Your task to perform on an android device: Open maps Image 0: 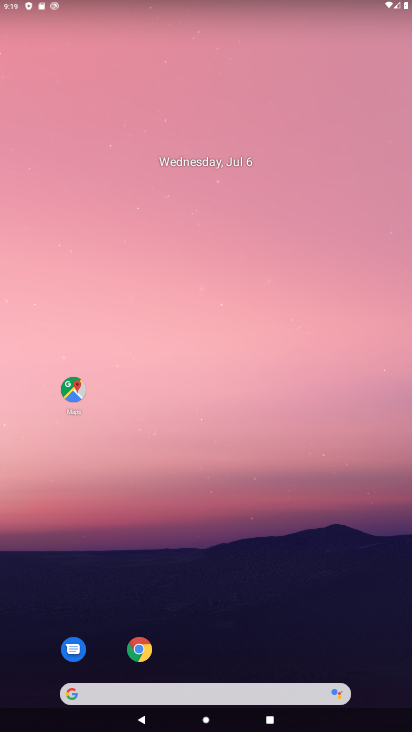
Step 0: press home button
Your task to perform on an android device: Open maps Image 1: 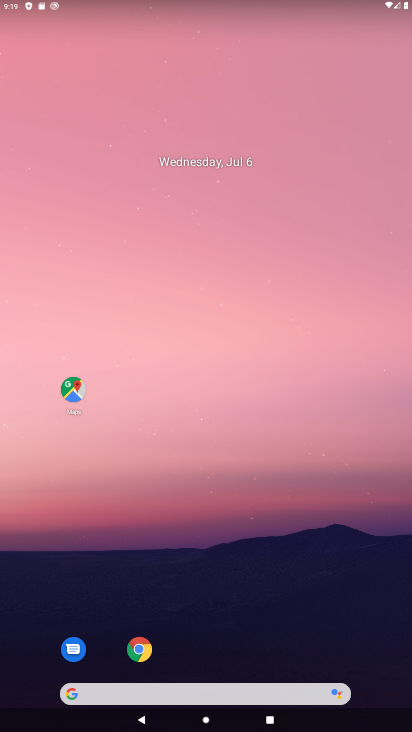
Step 1: drag from (211, 654) to (206, 494)
Your task to perform on an android device: Open maps Image 2: 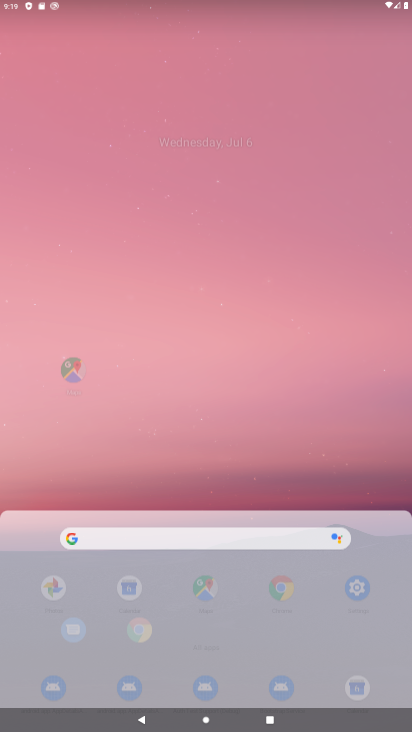
Step 2: drag from (235, 67) to (239, 11)
Your task to perform on an android device: Open maps Image 3: 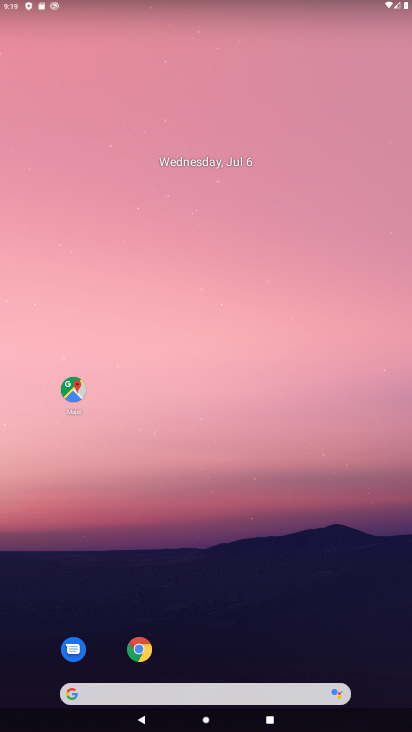
Step 3: drag from (222, 652) to (234, 0)
Your task to perform on an android device: Open maps Image 4: 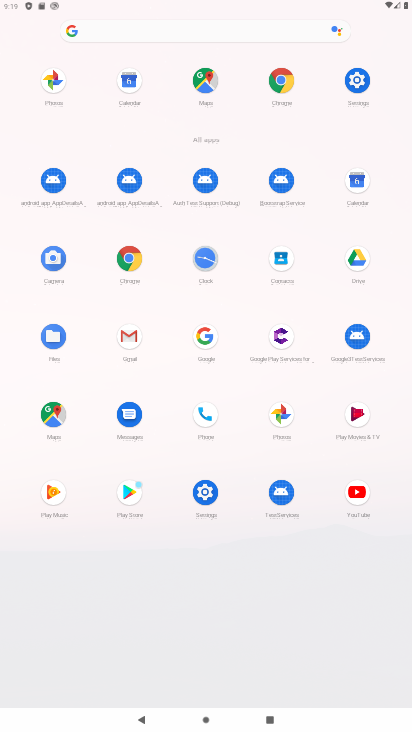
Step 4: click (203, 78)
Your task to perform on an android device: Open maps Image 5: 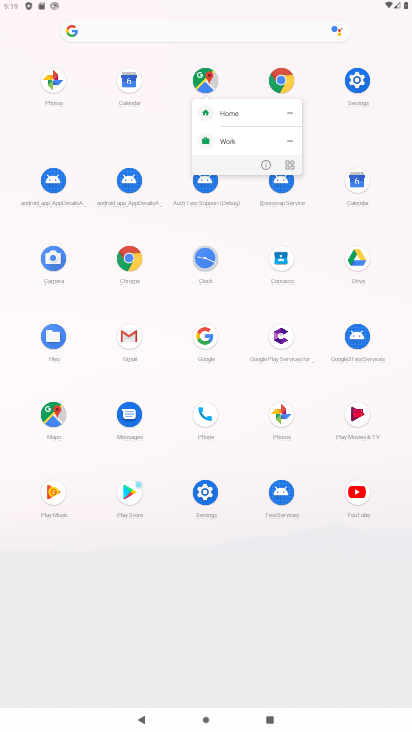
Step 5: click (201, 71)
Your task to perform on an android device: Open maps Image 6: 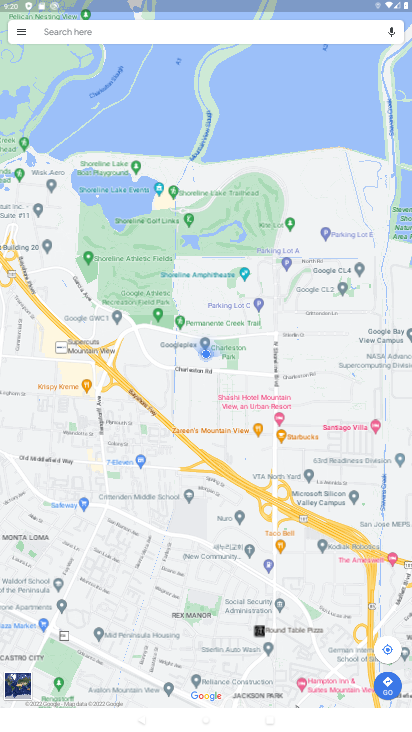
Step 6: task complete